Your task to perform on an android device: change your default location settings in chrome Image 0: 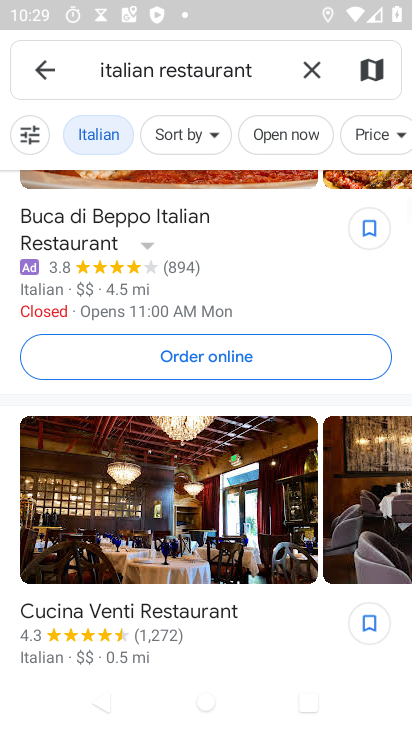
Step 0: press home button
Your task to perform on an android device: change your default location settings in chrome Image 1: 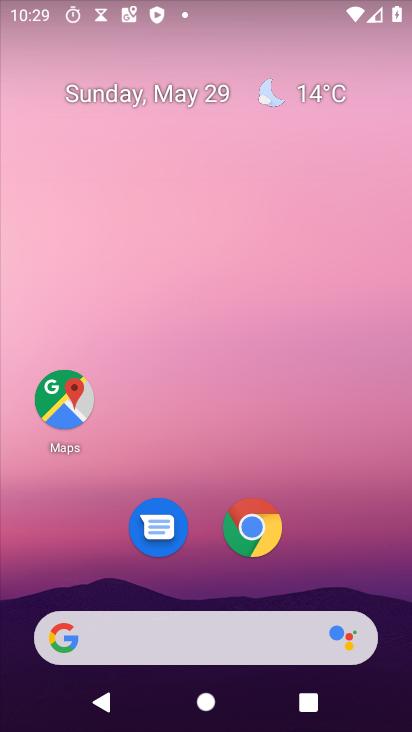
Step 1: click (256, 532)
Your task to perform on an android device: change your default location settings in chrome Image 2: 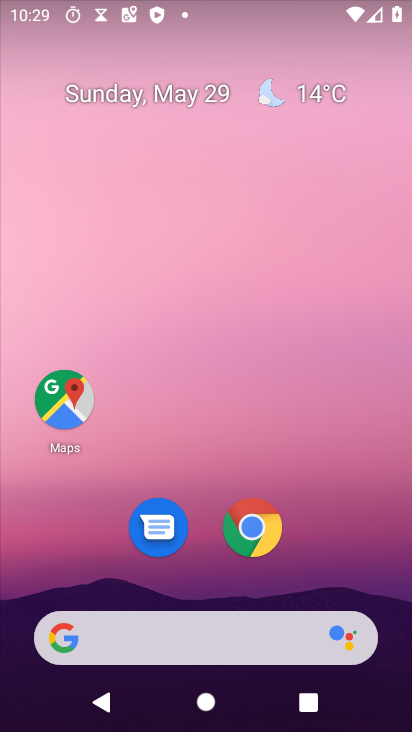
Step 2: click (255, 542)
Your task to perform on an android device: change your default location settings in chrome Image 3: 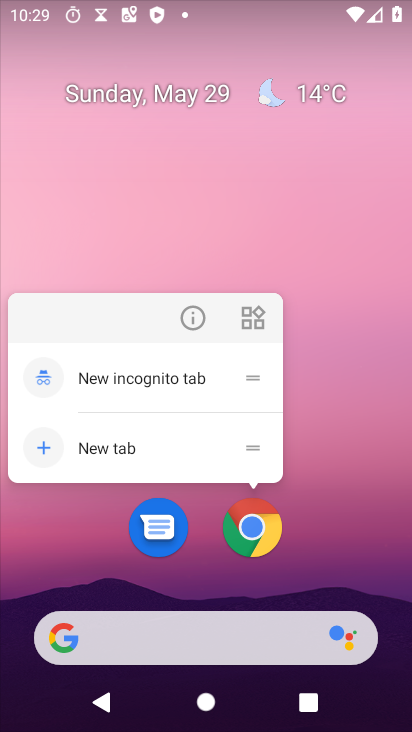
Step 3: click (259, 523)
Your task to perform on an android device: change your default location settings in chrome Image 4: 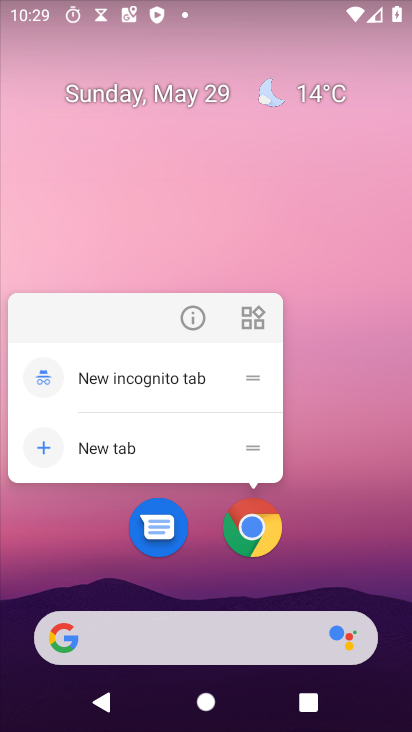
Step 4: click (253, 534)
Your task to perform on an android device: change your default location settings in chrome Image 5: 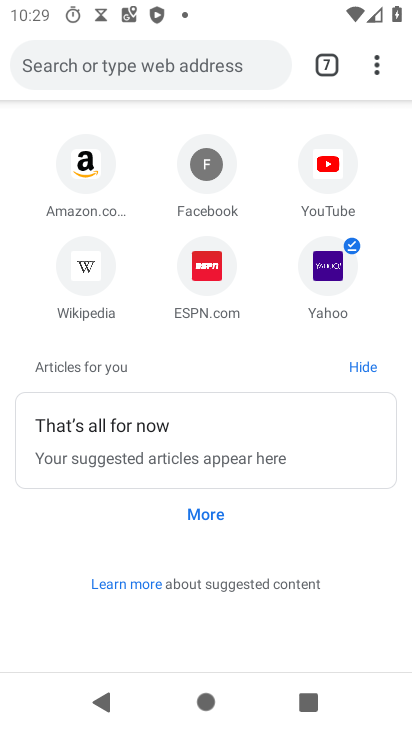
Step 5: drag from (375, 75) to (244, 546)
Your task to perform on an android device: change your default location settings in chrome Image 6: 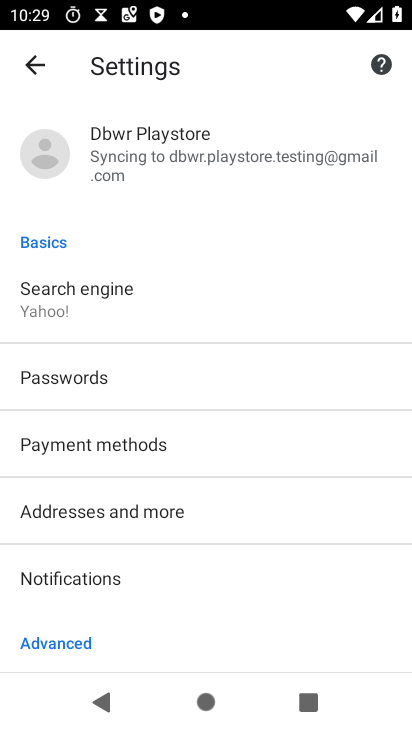
Step 6: drag from (199, 588) to (358, 88)
Your task to perform on an android device: change your default location settings in chrome Image 7: 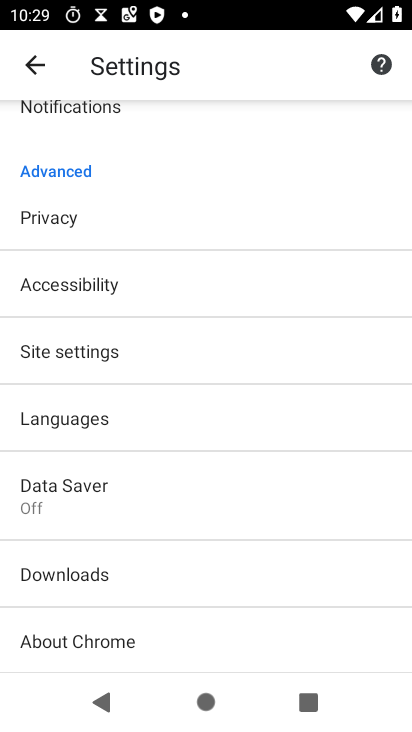
Step 7: click (84, 354)
Your task to perform on an android device: change your default location settings in chrome Image 8: 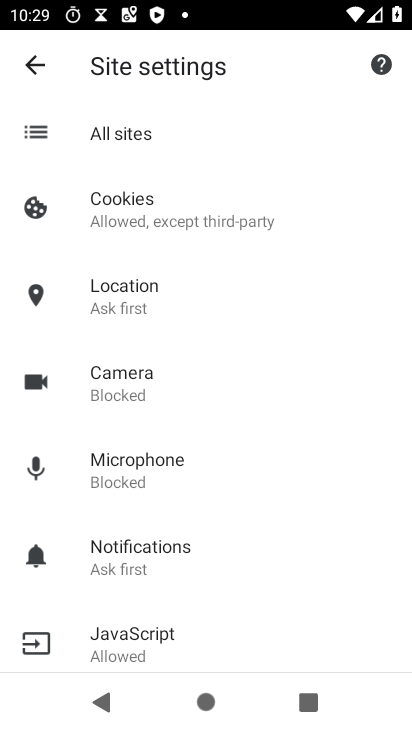
Step 8: click (129, 307)
Your task to perform on an android device: change your default location settings in chrome Image 9: 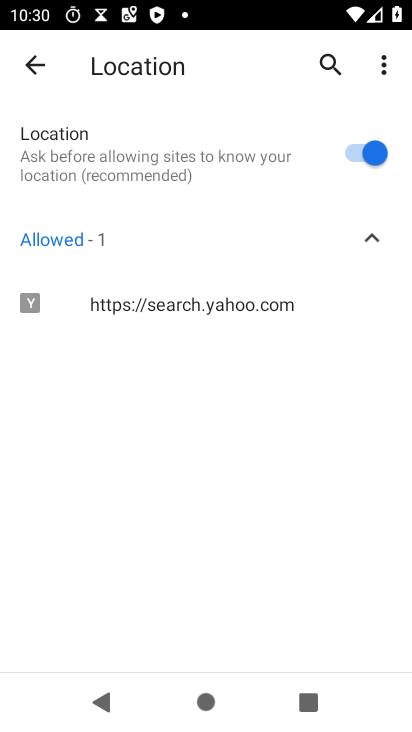
Step 9: click (350, 154)
Your task to perform on an android device: change your default location settings in chrome Image 10: 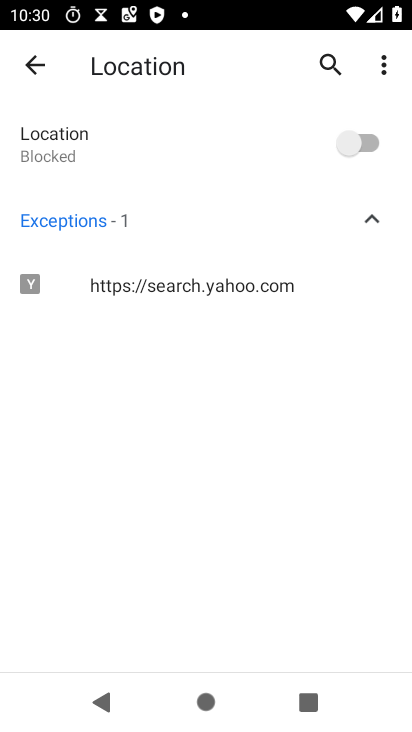
Step 10: task complete